Your task to perform on an android device: turn on the 24-hour format for clock Image 0: 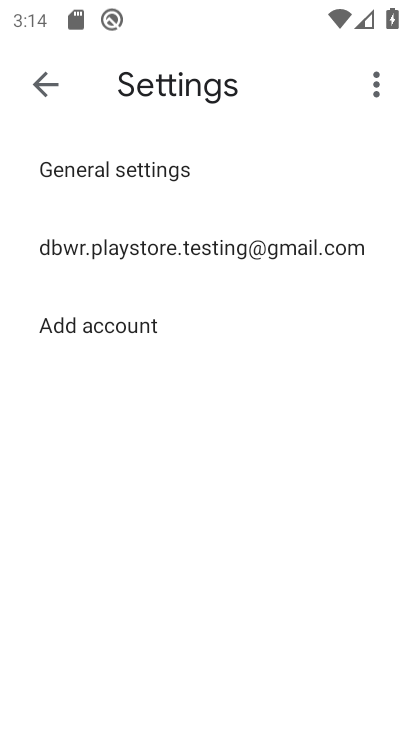
Step 0: press home button
Your task to perform on an android device: turn on the 24-hour format for clock Image 1: 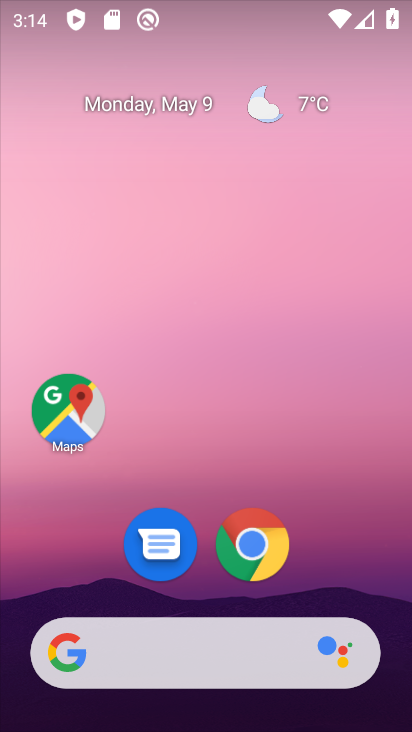
Step 1: drag from (197, 614) to (269, 86)
Your task to perform on an android device: turn on the 24-hour format for clock Image 2: 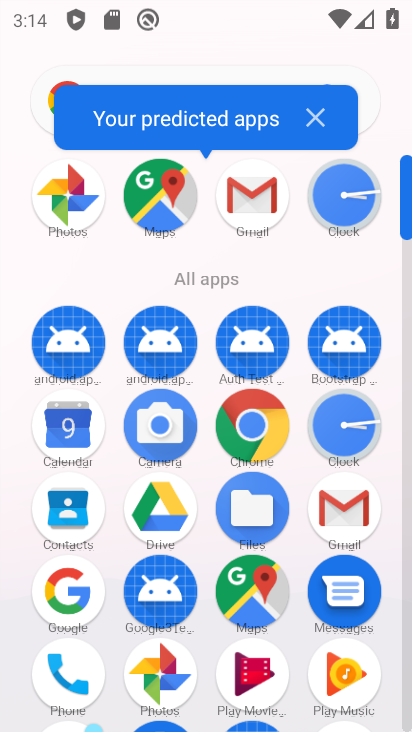
Step 2: click (348, 455)
Your task to perform on an android device: turn on the 24-hour format for clock Image 3: 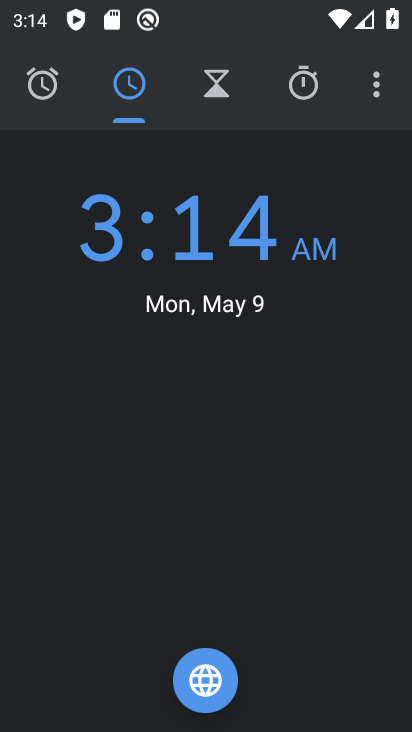
Step 3: click (374, 102)
Your task to perform on an android device: turn on the 24-hour format for clock Image 4: 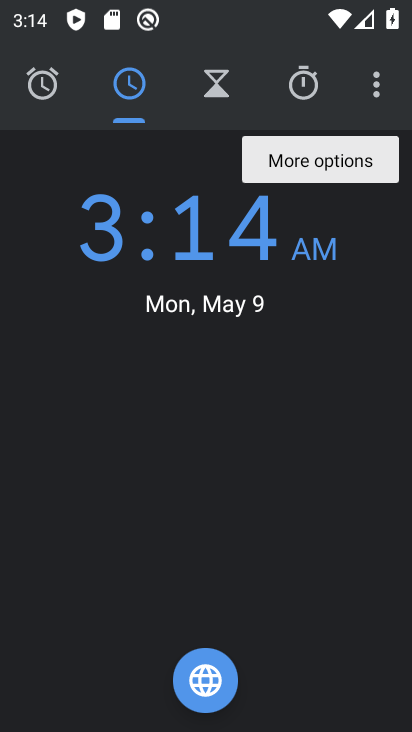
Step 4: click (374, 104)
Your task to perform on an android device: turn on the 24-hour format for clock Image 5: 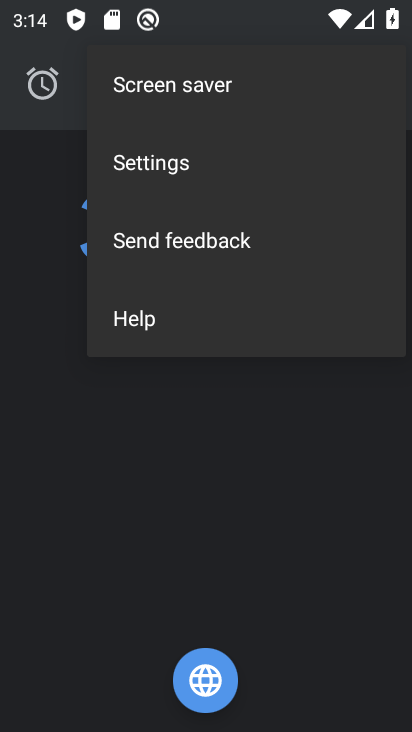
Step 5: click (288, 177)
Your task to perform on an android device: turn on the 24-hour format for clock Image 6: 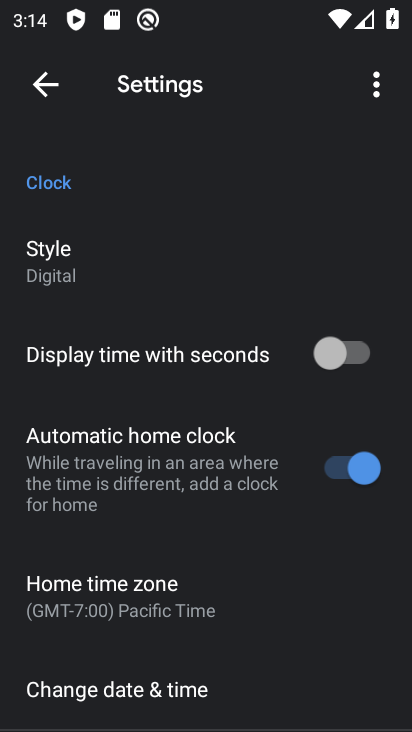
Step 6: drag from (184, 661) to (240, 444)
Your task to perform on an android device: turn on the 24-hour format for clock Image 7: 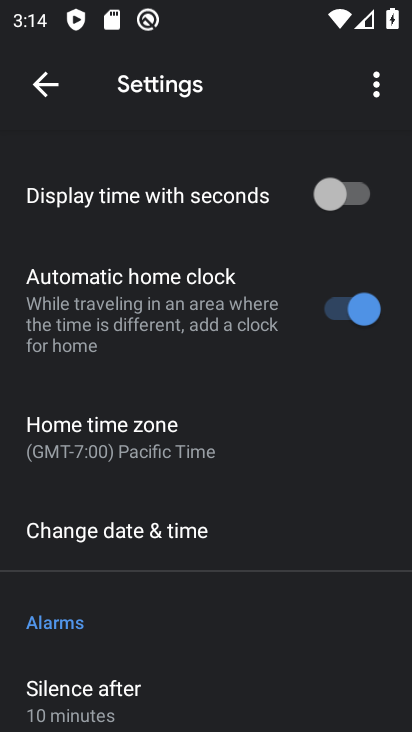
Step 7: click (224, 536)
Your task to perform on an android device: turn on the 24-hour format for clock Image 8: 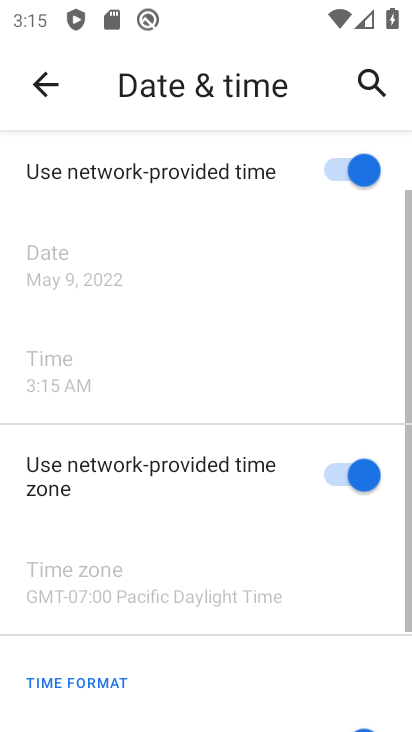
Step 8: drag from (239, 692) to (262, 567)
Your task to perform on an android device: turn on the 24-hour format for clock Image 9: 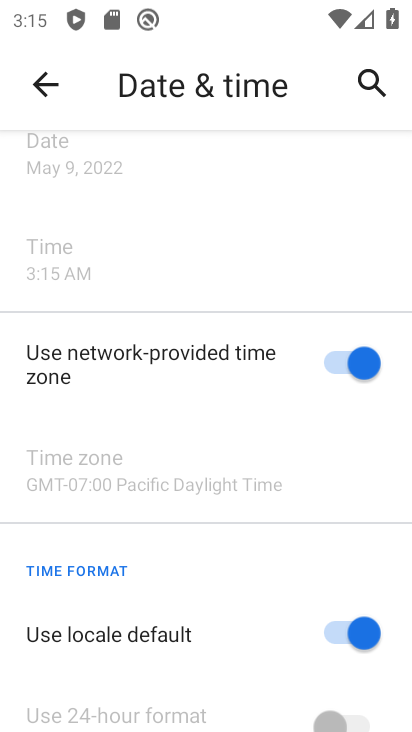
Step 9: drag from (180, 623) to (226, 422)
Your task to perform on an android device: turn on the 24-hour format for clock Image 10: 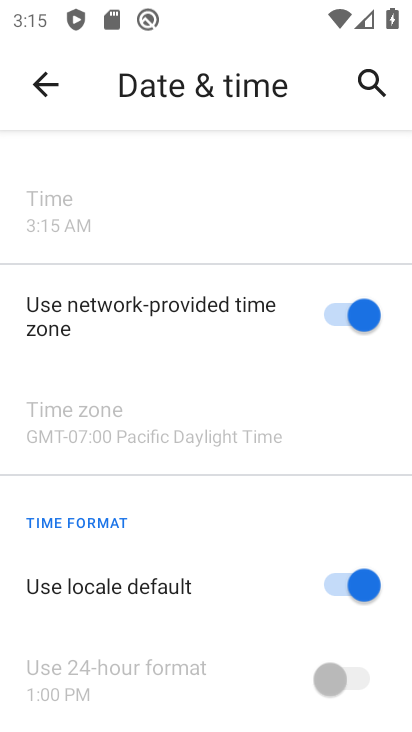
Step 10: click (349, 595)
Your task to perform on an android device: turn on the 24-hour format for clock Image 11: 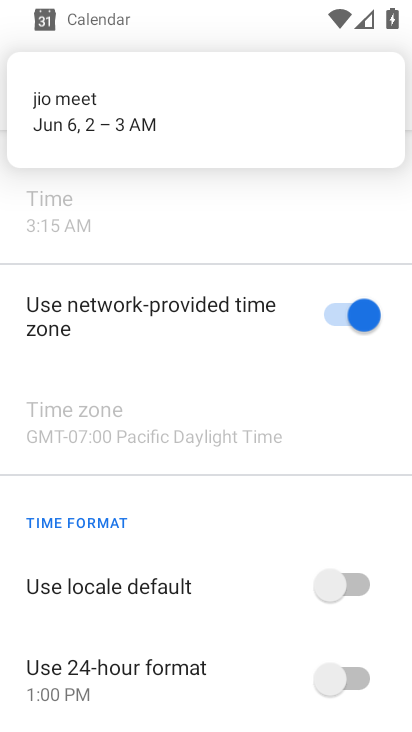
Step 11: click (375, 700)
Your task to perform on an android device: turn on the 24-hour format for clock Image 12: 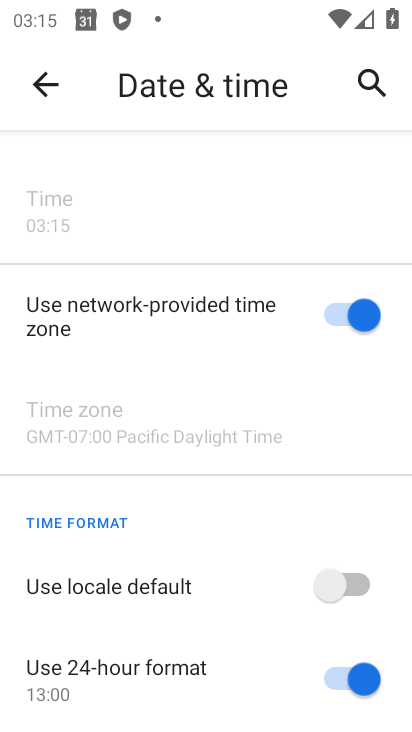
Step 12: task complete